Your task to perform on an android device: turn on showing notifications on the lock screen Image 0: 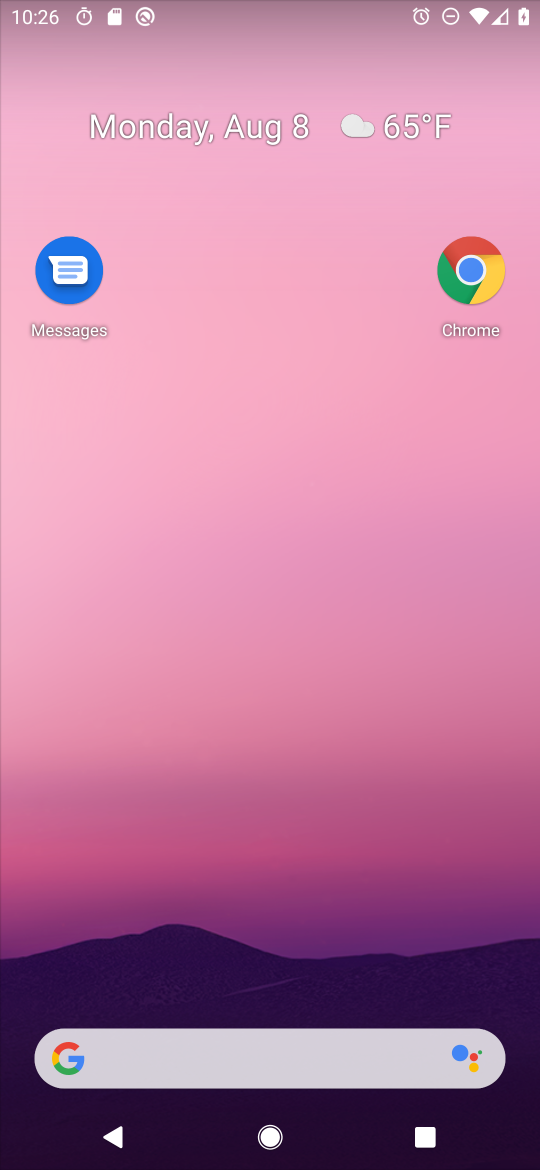
Step 0: press home button
Your task to perform on an android device: turn on showing notifications on the lock screen Image 1: 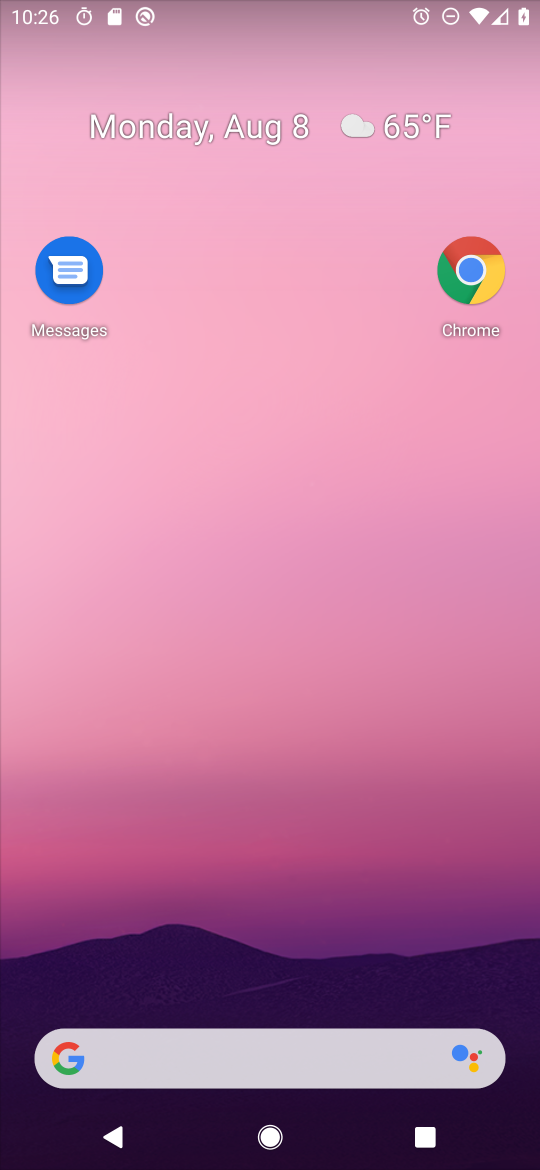
Step 1: drag from (259, 999) to (412, 215)
Your task to perform on an android device: turn on showing notifications on the lock screen Image 2: 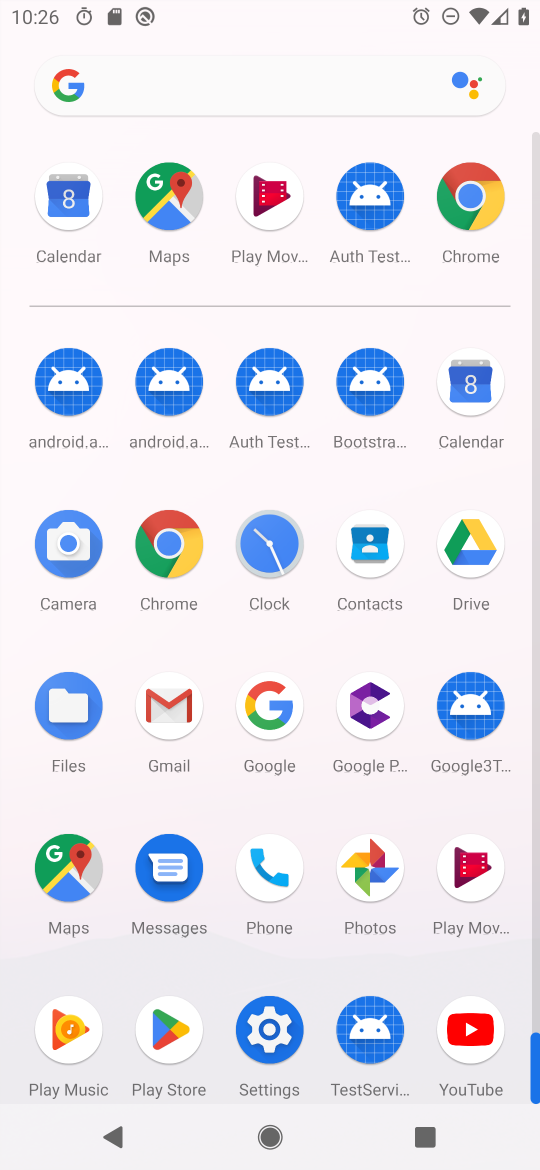
Step 2: click (271, 1020)
Your task to perform on an android device: turn on showing notifications on the lock screen Image 3: 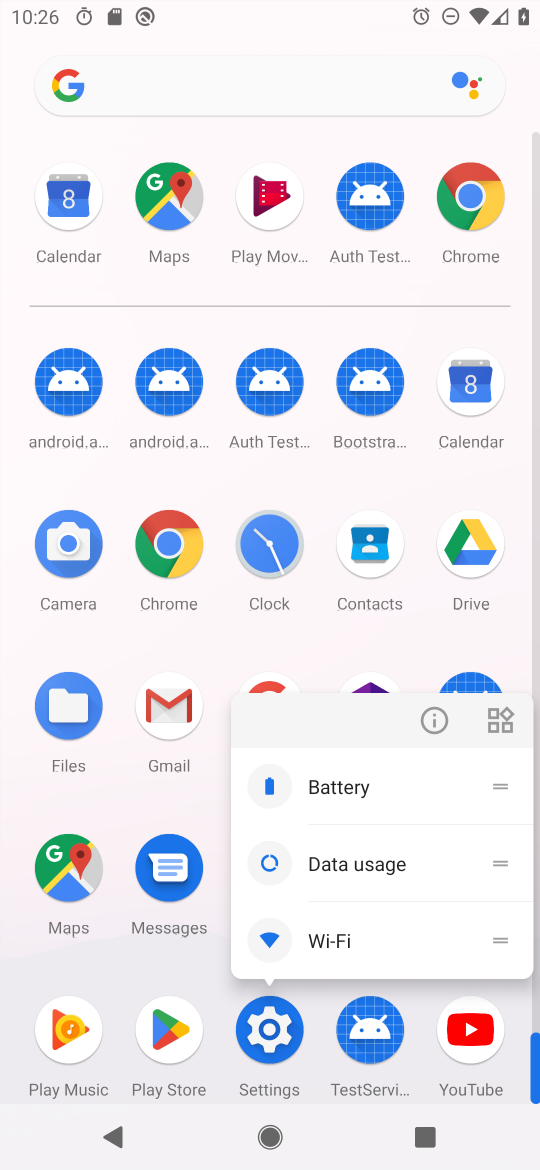
Step 3: click (448, 712)
Your task to perform on an android device: turn on showing notifications on the lock screen Image 4: 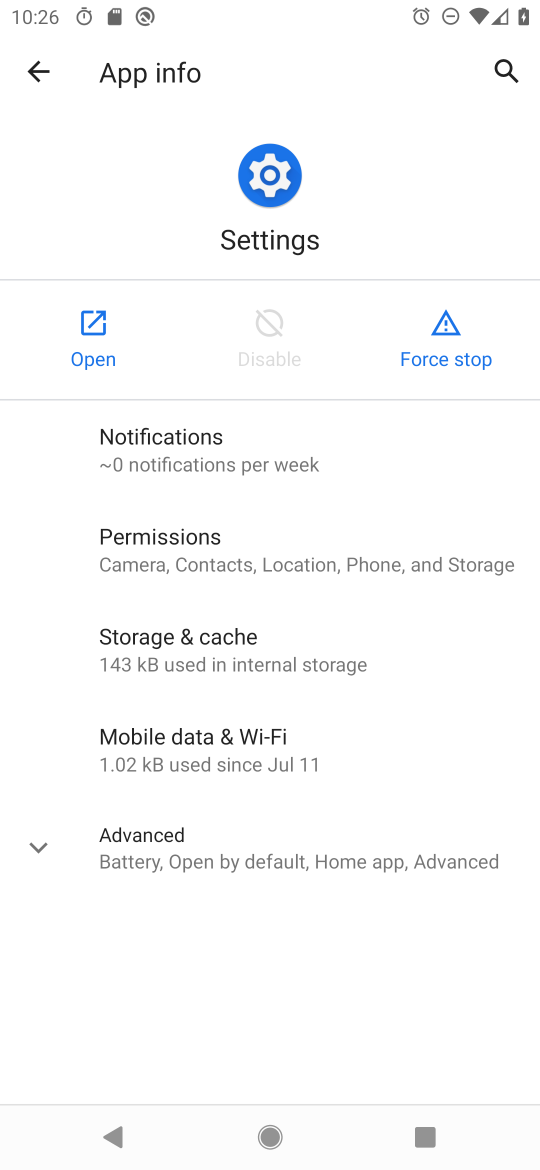
Step 4: click (87, 348)
Your task to perform on an android device: turn on showing notifications on the lock screen Image 5: 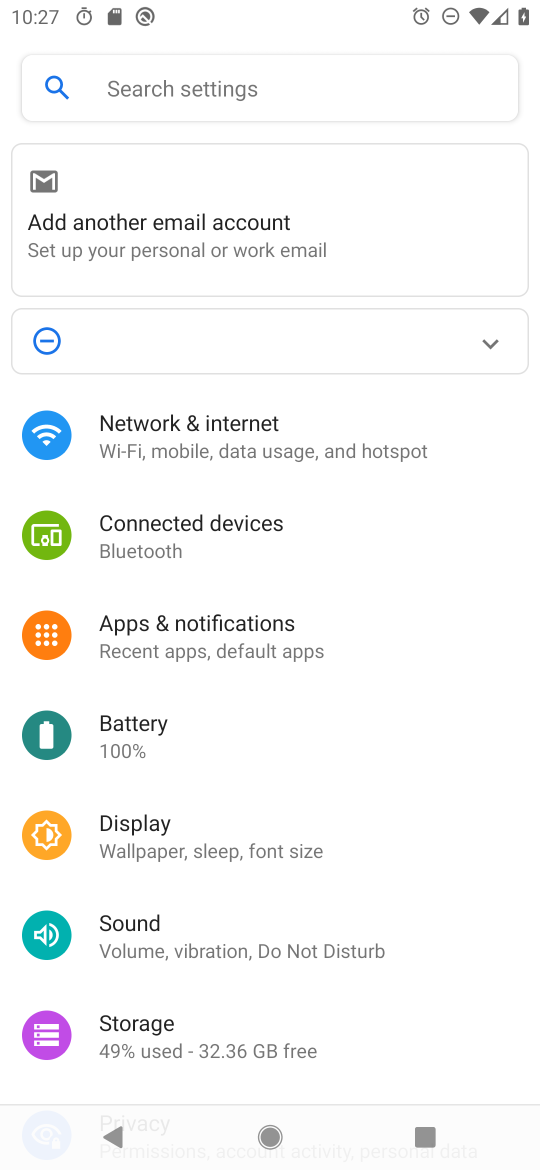
Step 5: click (172, 467)
Your task to perform on an android device: turn on showing notifications on the lock screen Image 6: 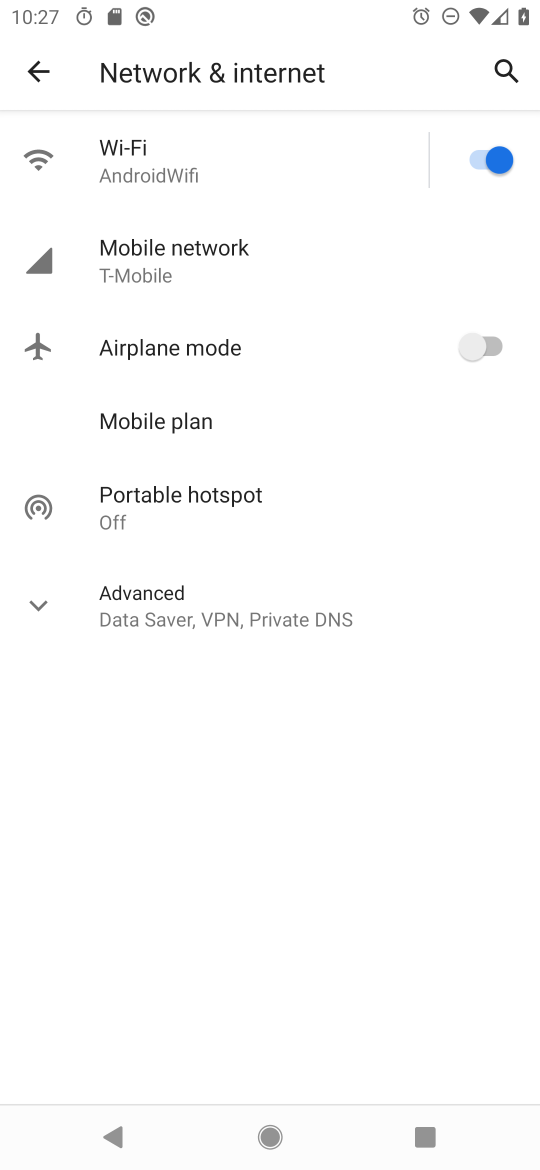
Step 6: press back button
Your task to perform on an android device: turn on showing notifications on the lock screen Image 7: 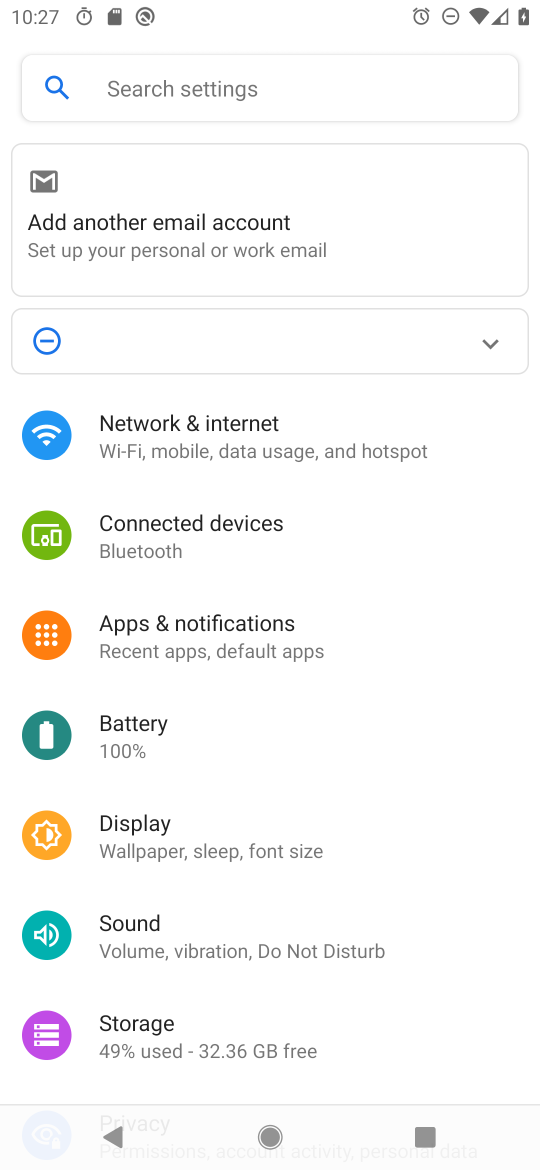
Step 7: click (153, 638)
Your task to perform on an android device: turn on showing notifications on the lock screen Image 8: 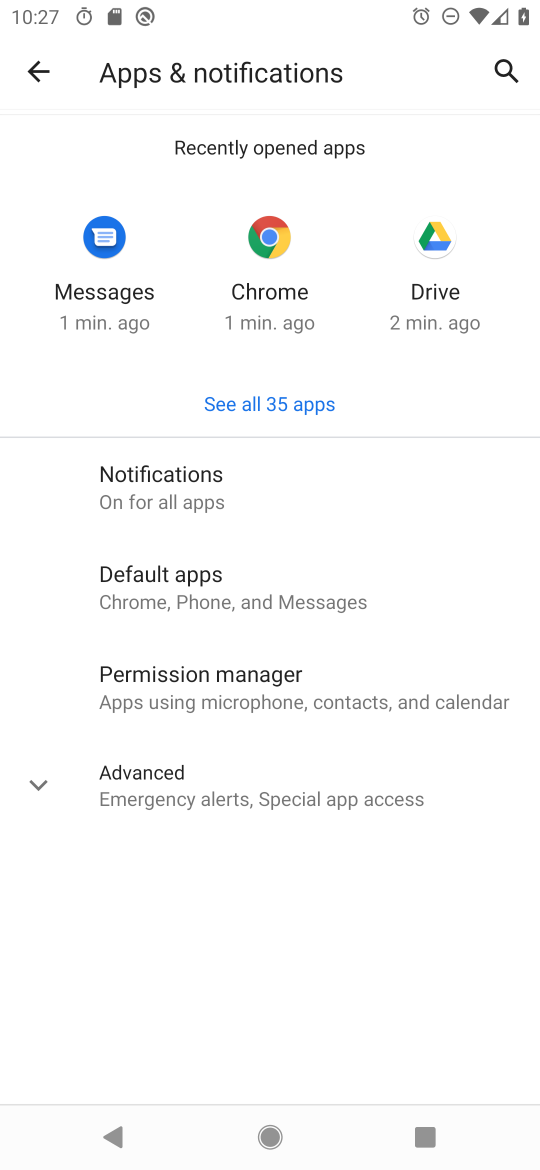
Step 8: click (219, 485)
Your task to perform on an android device: turn on showing notifications on the lock screen Image 9: 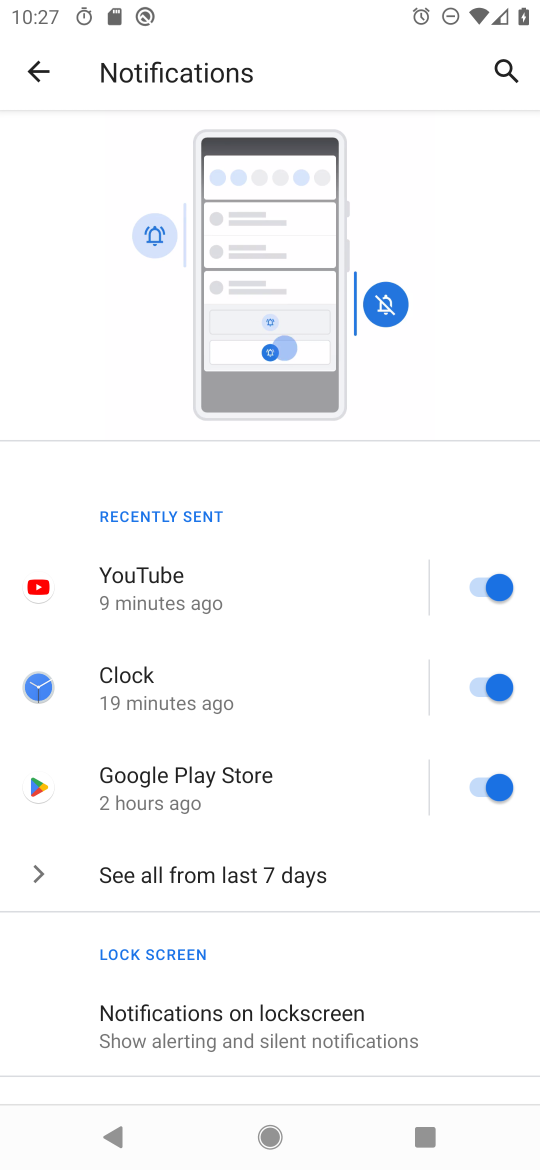
Step 9: click (293, 1001)
Your task to perform on an android device: turn on showing notifications on the lock screen Image 10: 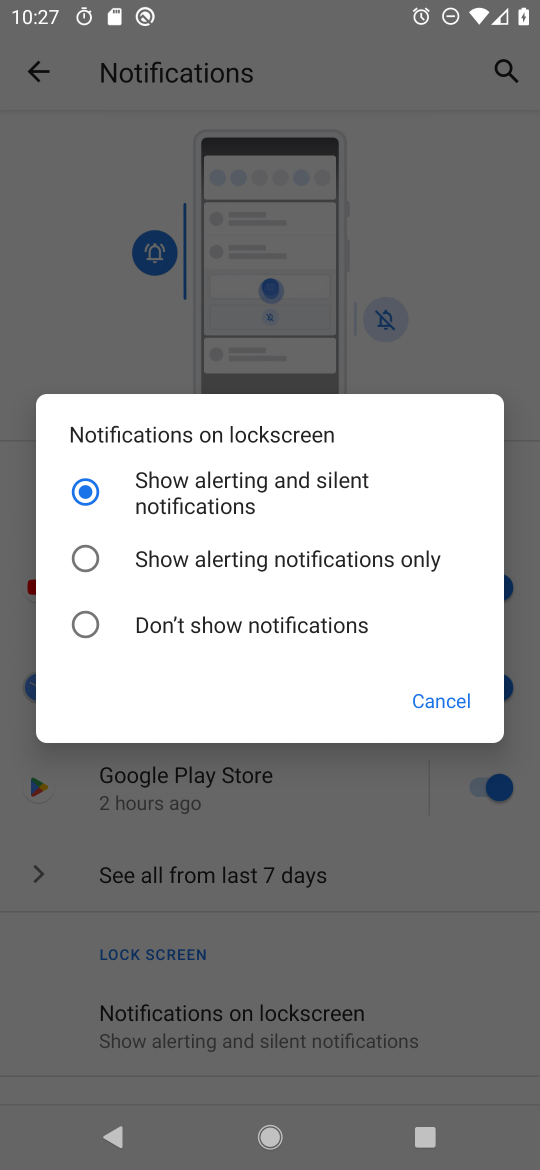
Step 10: click (87, 550)
Your task to perform on an android device: turn on showing notifications on the lock screen Image 11: 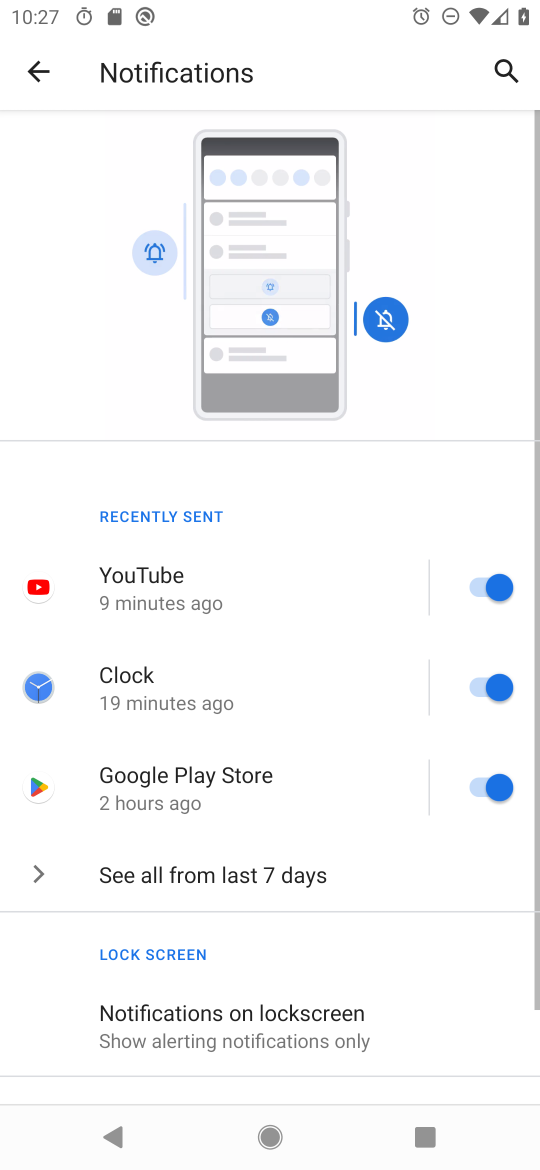
Step 11: task complete